Your task to perform on an android device: Open settings Image 0: 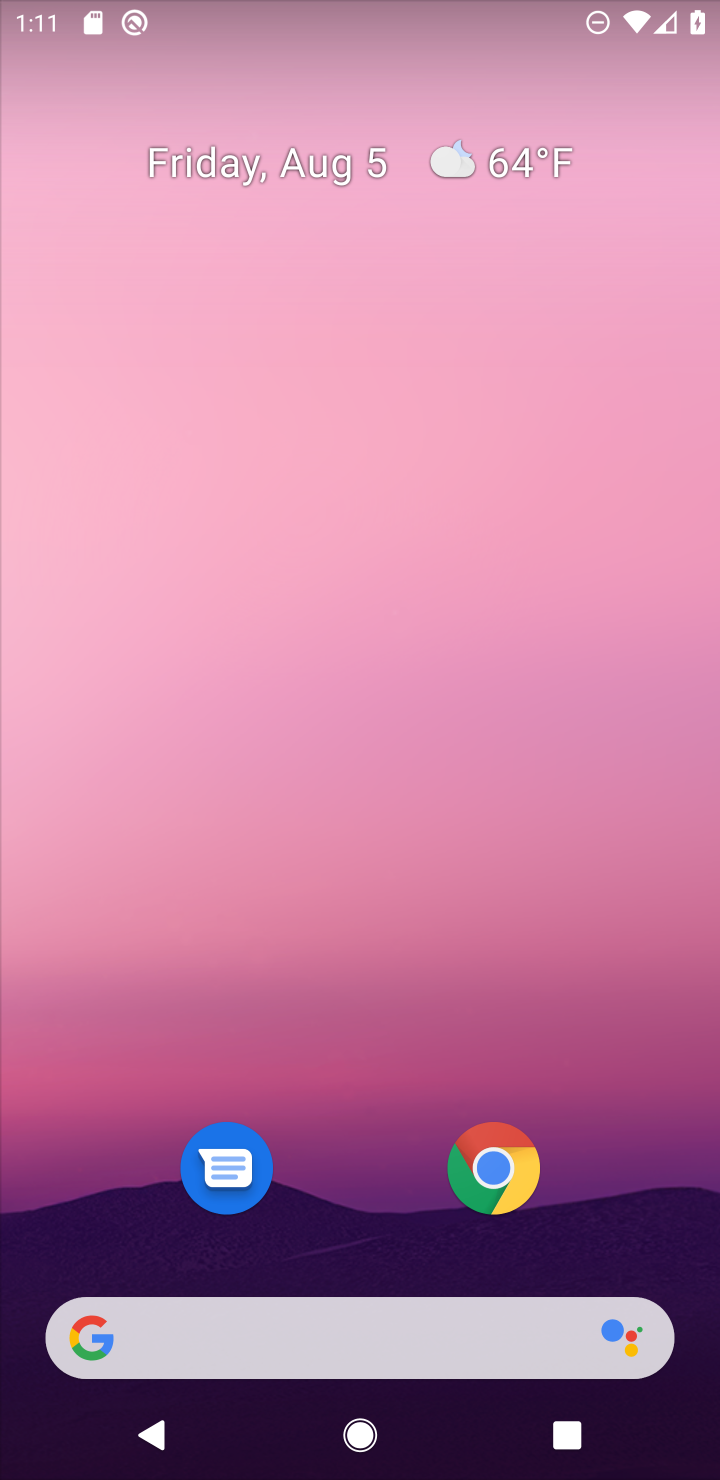
Step 0: drag from (349, 1103) to (418, 111)
Your task to perform on an android device: Open settings Image 1: 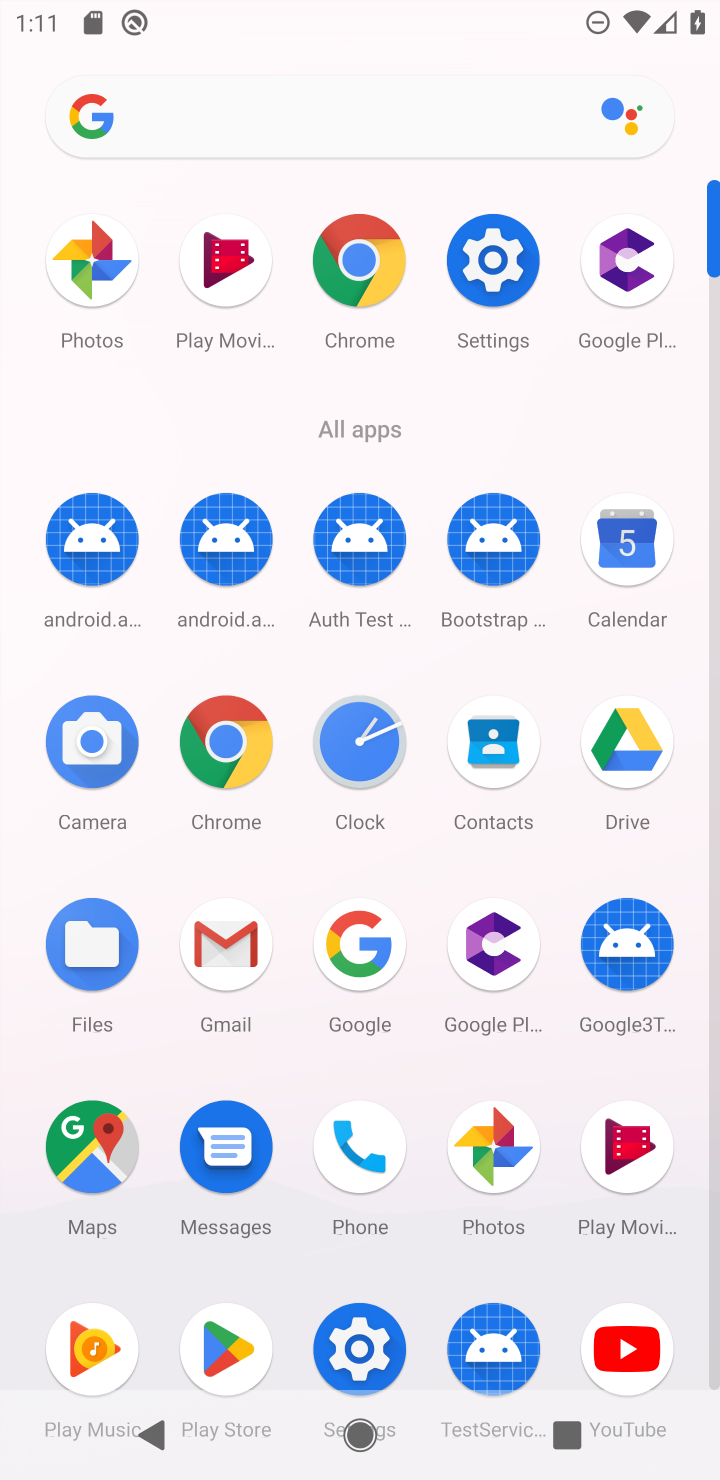
Step 1: click (480, 264)
Your task to perform on an android device: Open settings Image 2: 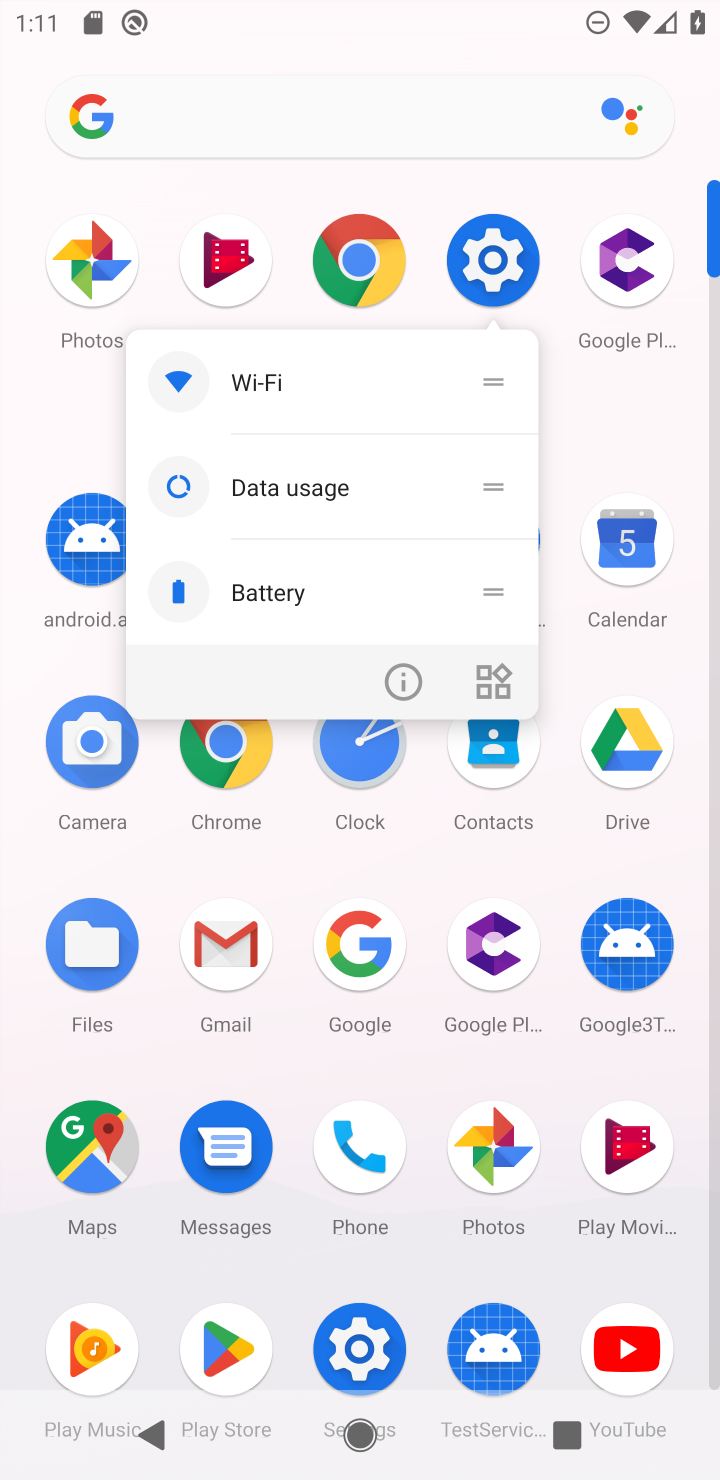
Step 2: click (494, 258)
Your task to perform on an android device: Open settings Image 3: 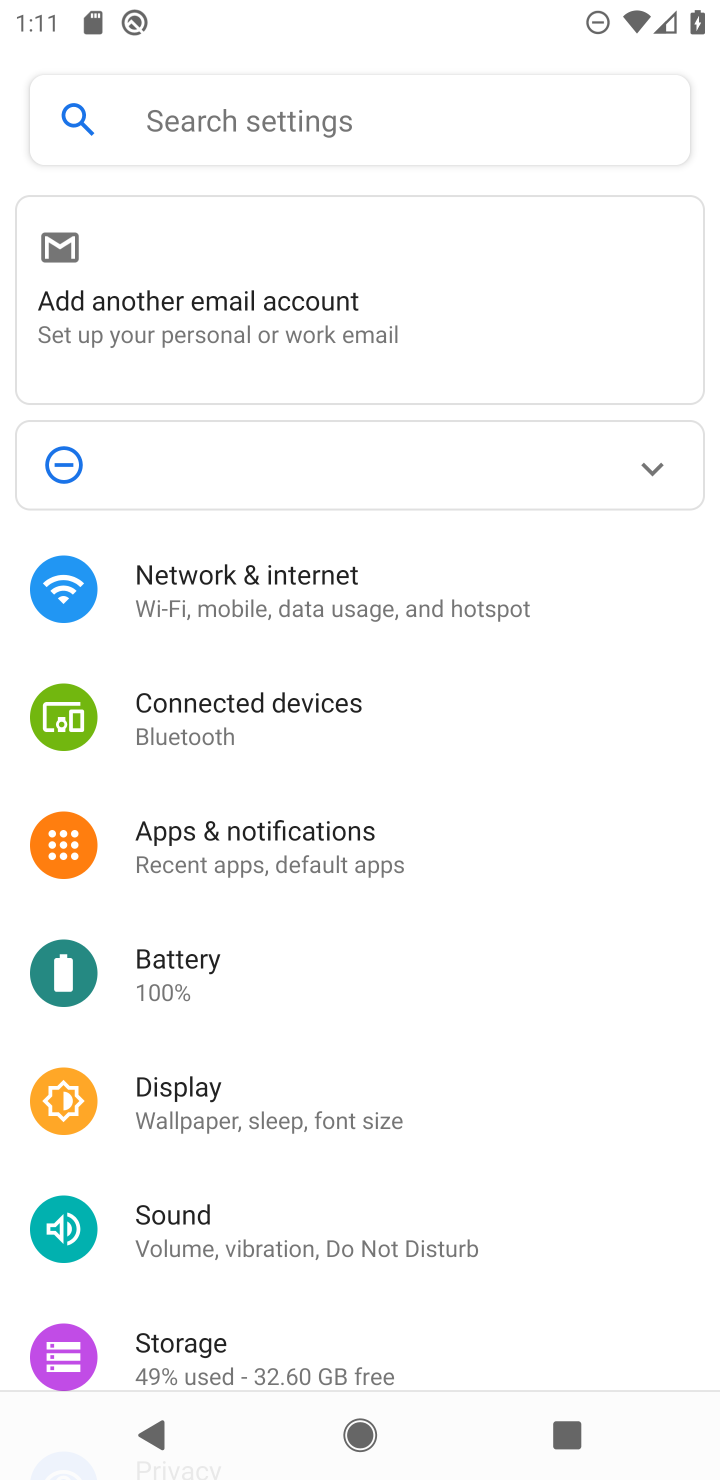
Step 3: task complete